Your task to perform on an android device: turn on data saver in the chrome app Image 0: 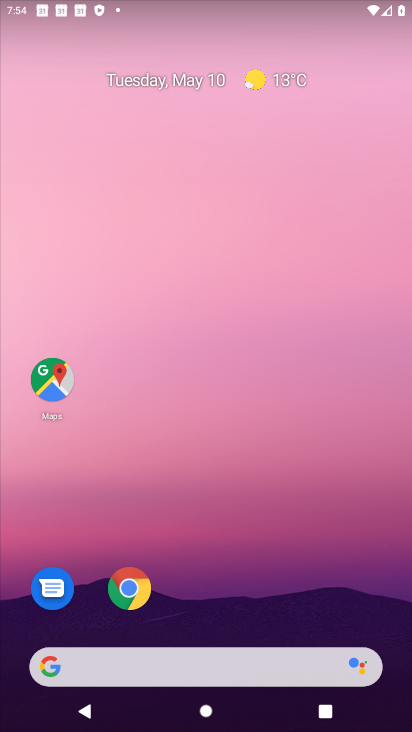
Step 0: click (130, 590)
Your task to perform on an android device: turn on data saver in the chrome app Image 1: 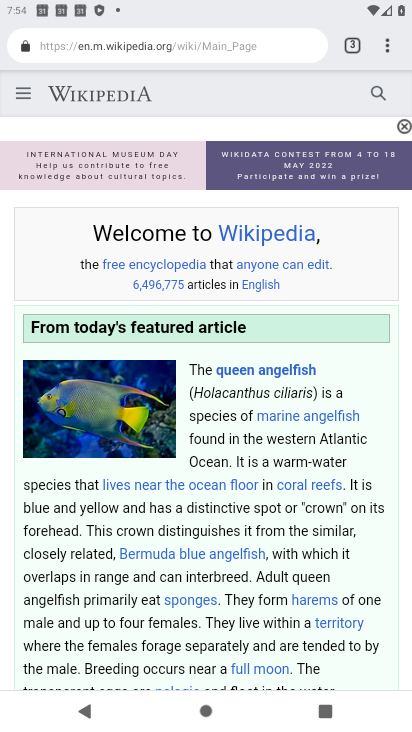
Step 1: click (383, 35)
Your task to perform on an android device: turn on data saver in the chrome app Image 2: 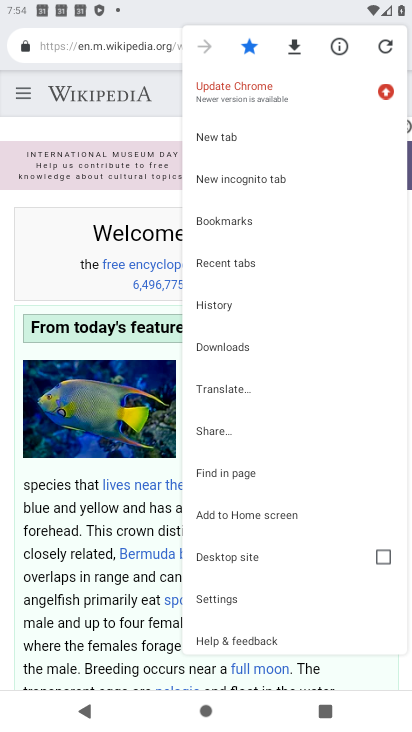
Step 2: click (251, 593)
Your task to perform on an android device: turn on data saver in the chrome app Image 3: 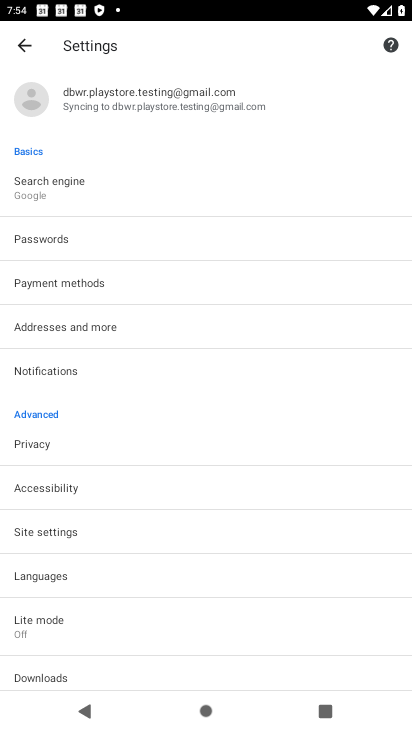
Step 3: click (115, 639)
Your task to perform on an android device: turn on data saver in the chrome app Image 4: 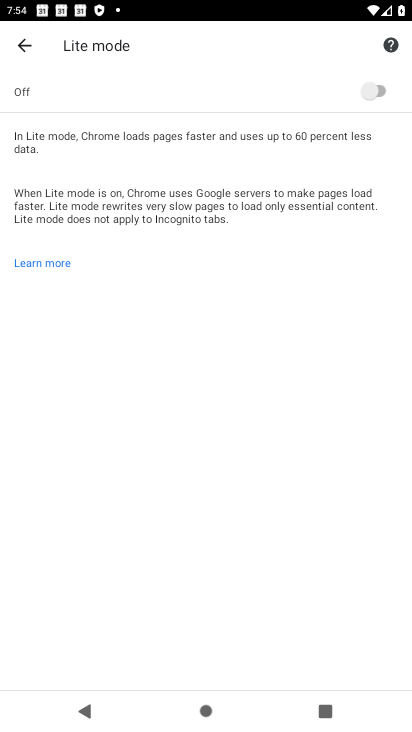
Step 4: click (382, 81)
Your task to perform on an android device: turn on data saver in the chrome app Image 5: 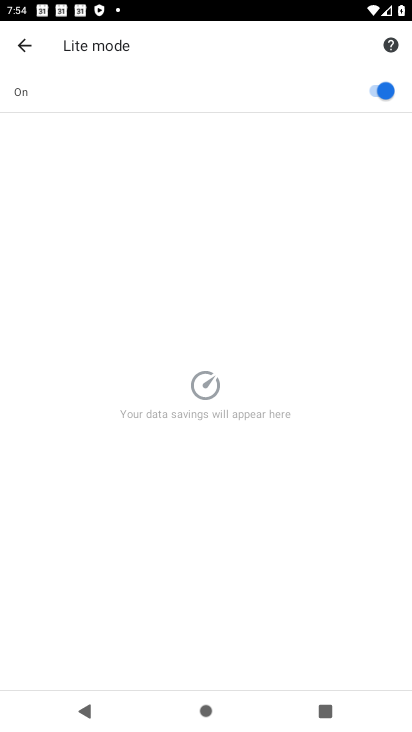
Step 5: task complete